Your task to perform on an android device: turn off data saver in the chrome app Image 0: 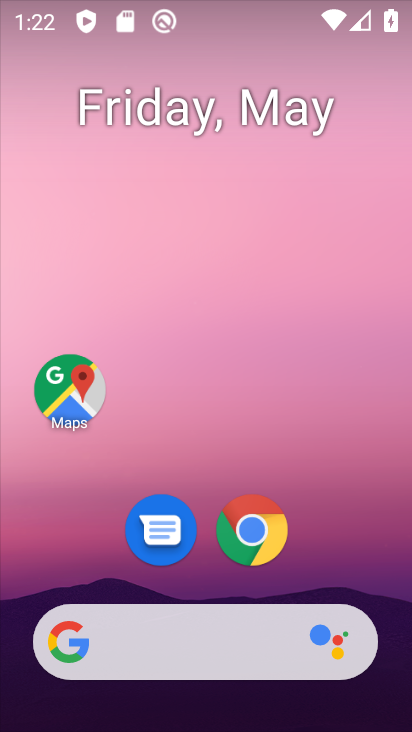
Step 0: click (256, 535)
Your task to perform on an android device: turn off data saver in the chrome app Image 1: 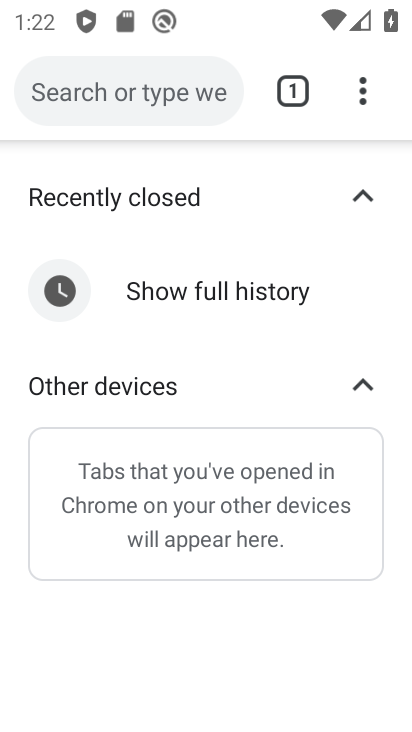
Step 1: click (365, 90)
Your task to perform on an android device: turn off data saver in the chrome app Image 2: 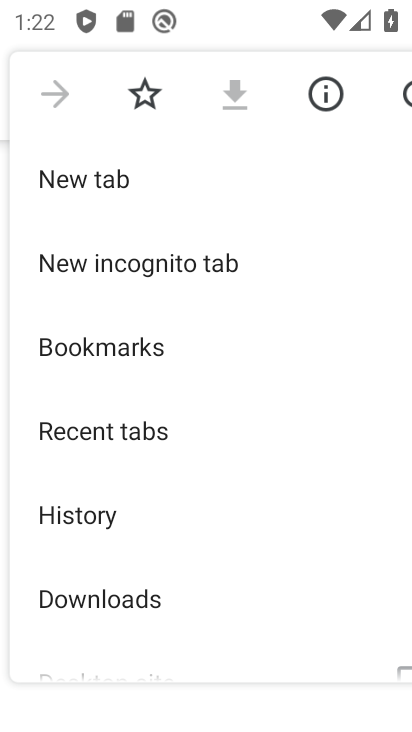
Step 2: drag from (259, 631) to (217, 169)
Your task to perform on an android device: turn off data saver in the chrome app Image 3: 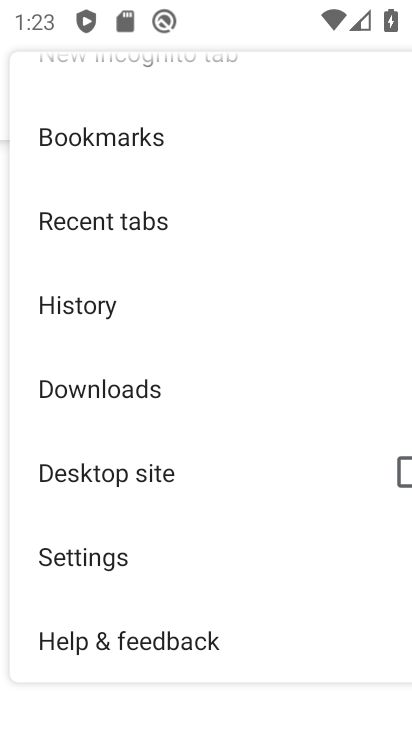
Step 3: click (88, 544)
Your task to perform on an android device: turn off data saver in the chrome app Image 4: 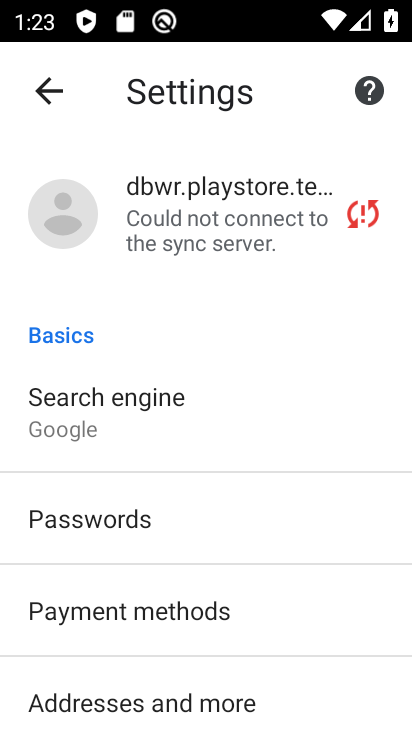
Step 4: drag from (201, 657) to (133, 107)
Your task to perform on an android device: turn off data saver in the chrome app Image 5: 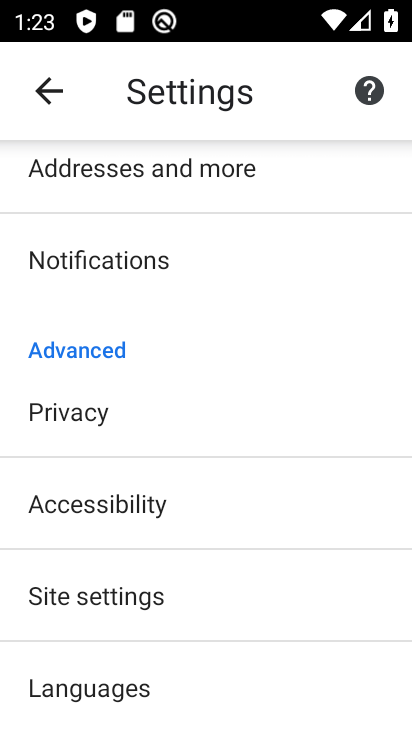
Step 5: drag from (118, 672) to (76, 323)
Your task to perform on an android device: turn off data saver in the chrome app Image 6: 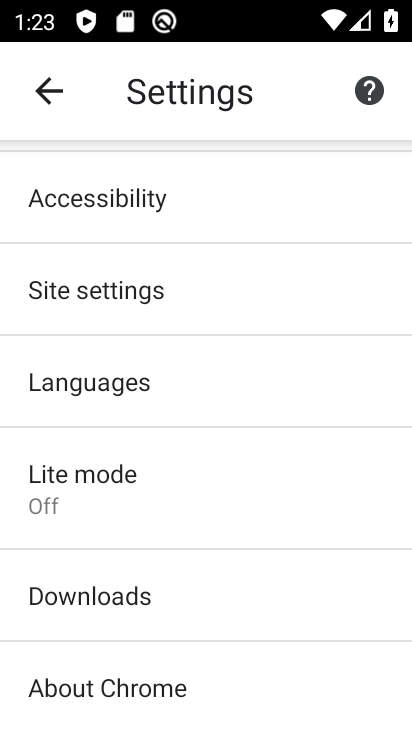
Step 6: click (108, 483)
Your task to perform on an android device: turn off data saver in the chrome app Image 7: 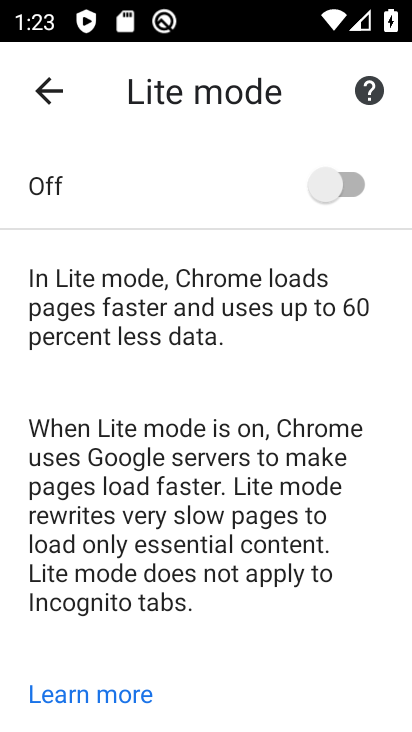
Step 7: task complete